Your task to perform on an android device: Search for vegetarian restaurants on Maps Image 0: 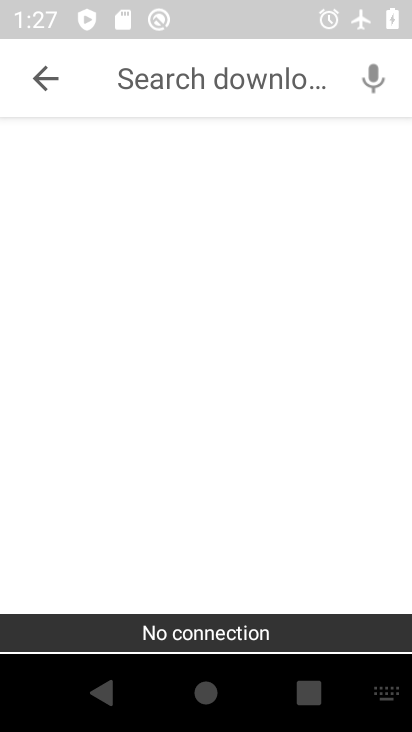
Step 0: press home button
Your task to perform on an android device: Search for vegetarian restaurants on Maps Image 1: 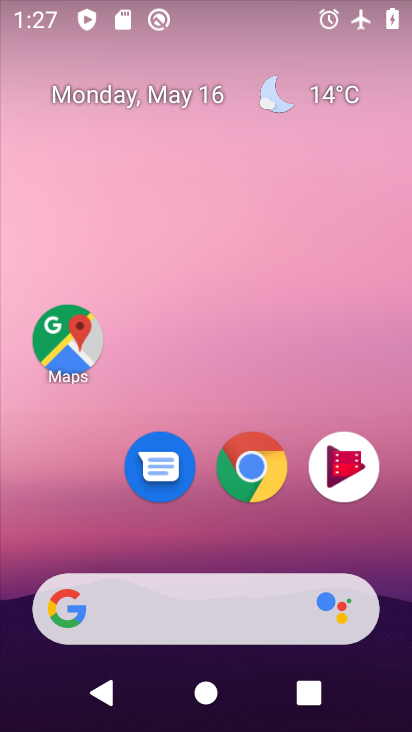
Step 1: drag from (191, 536) to (202, 171)
Your task to perform on an android device: Search for vegetarian restaurants on Maps Image 2: 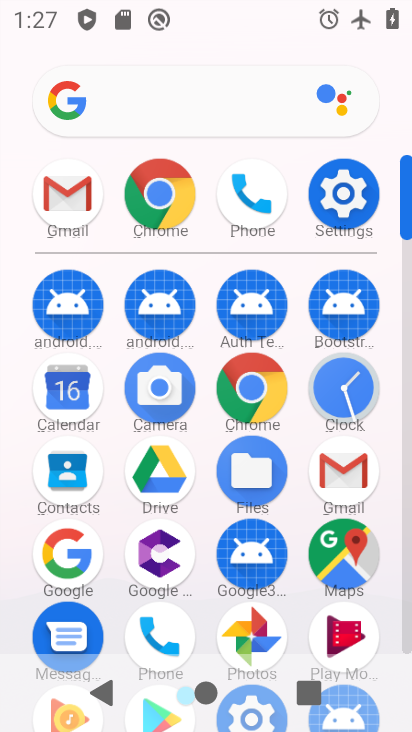
Step 2: drag from (245, 593) to (305, 289)
Your task to perform on an android device: Search for vegetarian restaurants on Maps Image 3: 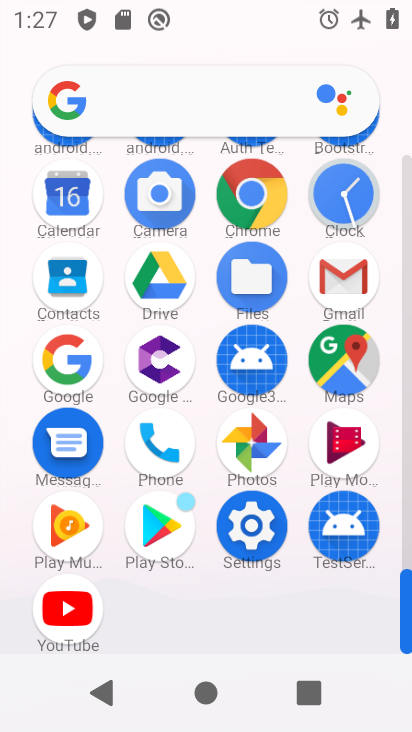
Step 3: click (324, 354)
Your task to perform on an android device: Search for vegetarian restaurants on Maps Image 4: 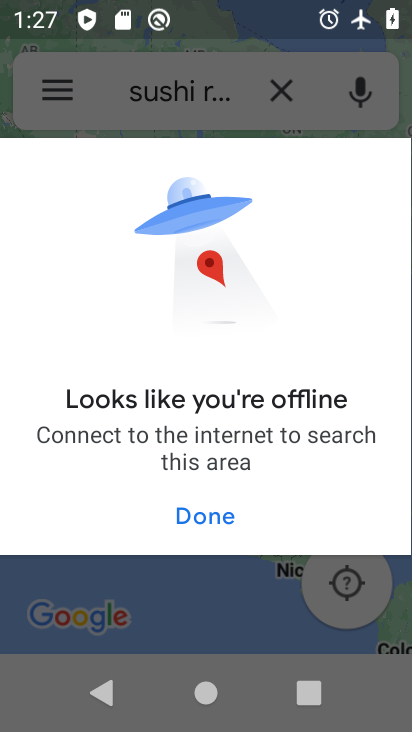
Step 4: click (178, 500)
Your task to perform on an android device: Search for vegetarian restaurants on Maps Image 5: 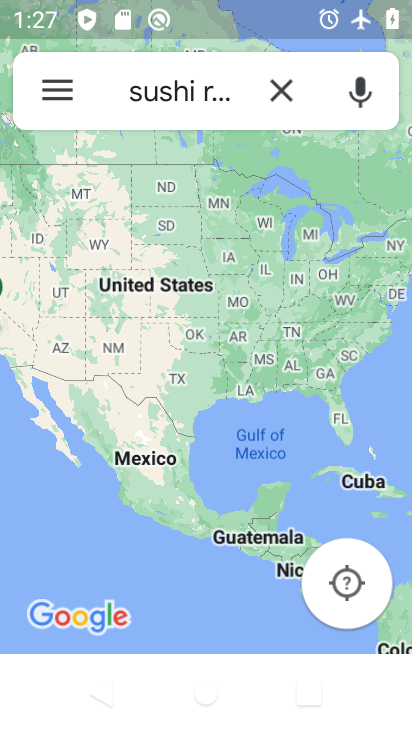
Step 5: click (278, 84)
Your task to perform on an android device: Search for vegetarian restaurants on Maps Image 6: 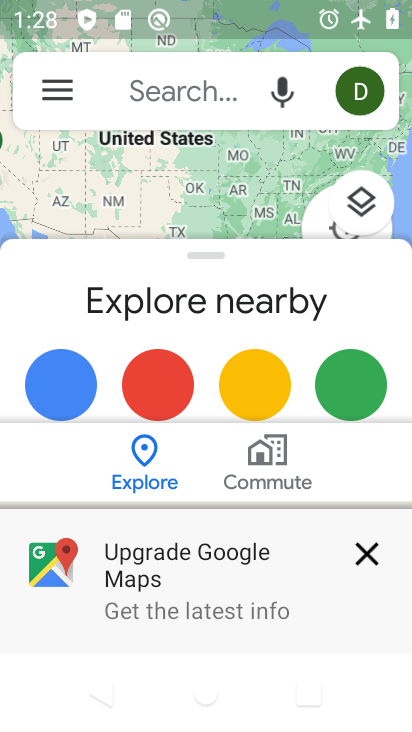
Step 6: click (187, 93)
Your task to perform on an android device: Search for vegetarian restaurants on Maps Image 7: 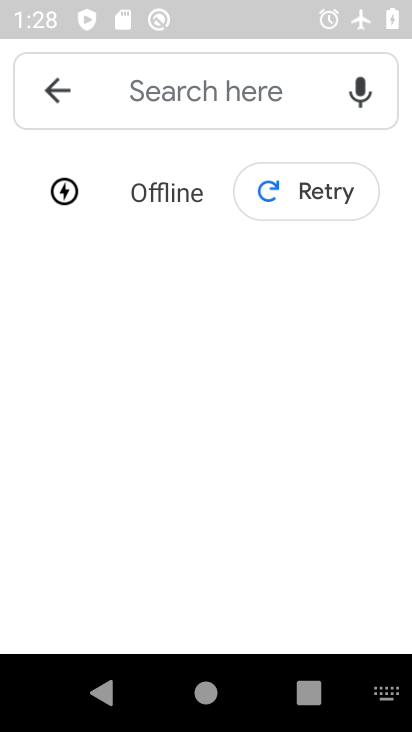
Step 7: click (169, 66)
Your task to perform on an android device: Search for vegetarian restaurants on Maps Image 8: 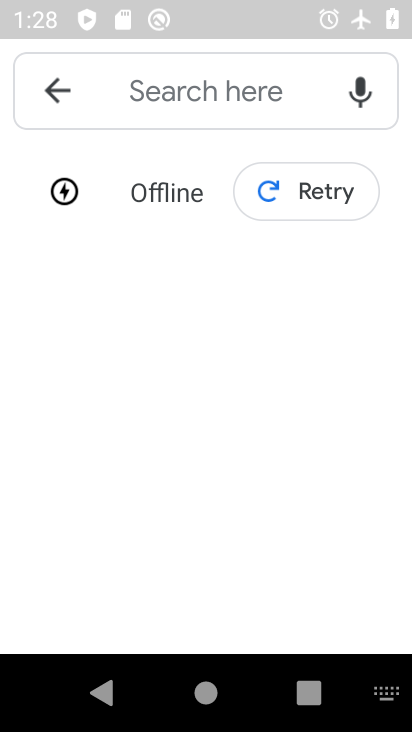
Step 8: type " vegetarian restaurants "
Your task to perform on an android device: Search for vegetarian restaurants on Maps Image 9: 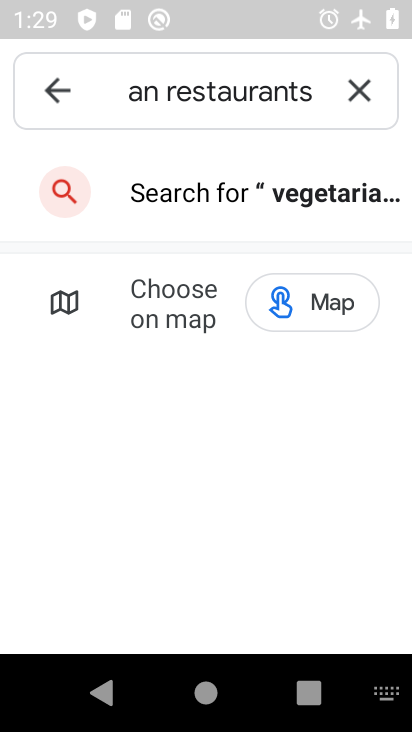
Step 9: click (273, 180)
Your task to perform on an android device: Search for vegetarian restaurants on Maps Image 10: 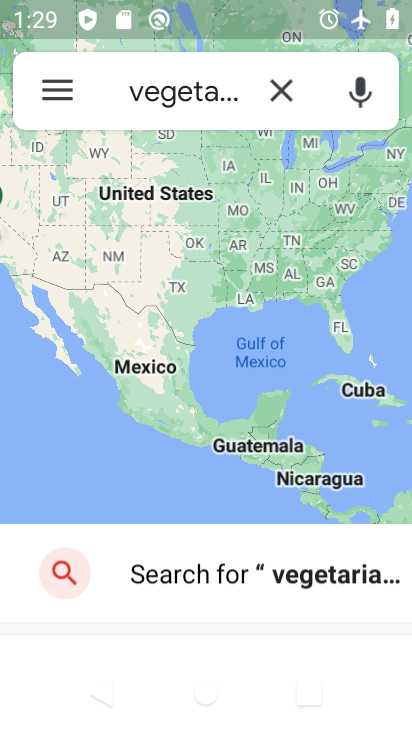
Step 10: task complete